Your task to perform on an android device: Open sound settings Image 0: 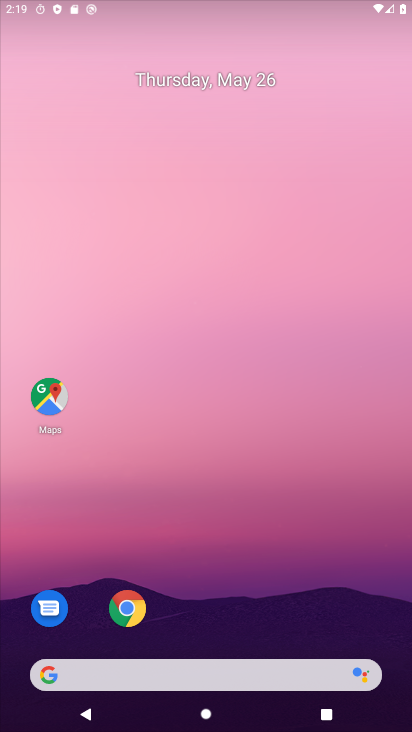
Step 0: drag from (25, 54) to (222, 118)
Your task to perform on an android device: Open sound settings Image 1: 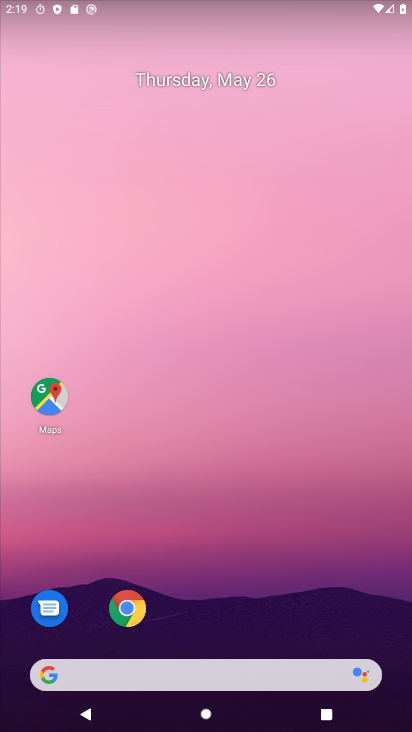
Step 1: drag from (267, 692) to (215, 154)
Your task to perform on an android device: Open sound settings Image 2: 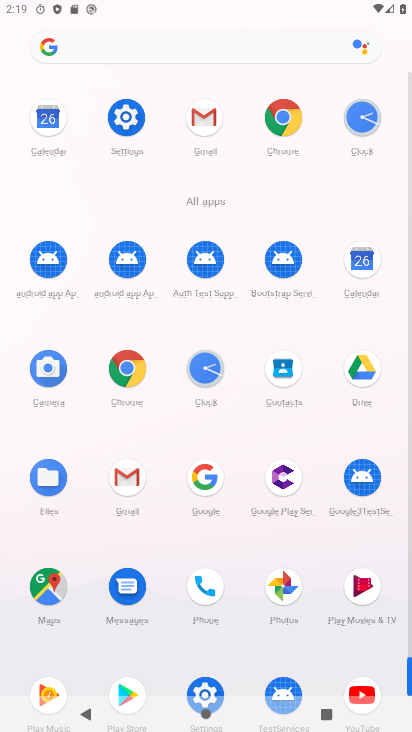
Step 2: click (125, 125)
Your task to perform on an android device: Open sound settings Image 3: 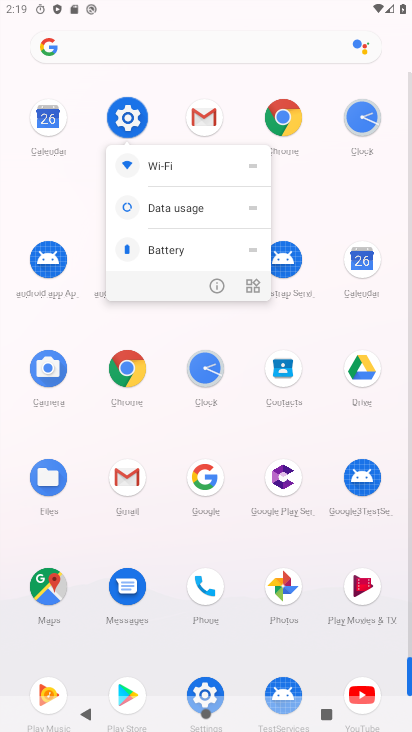
Step 3: click (125, 124)
Your task to perform on an android device: Open sound settings Image 4: 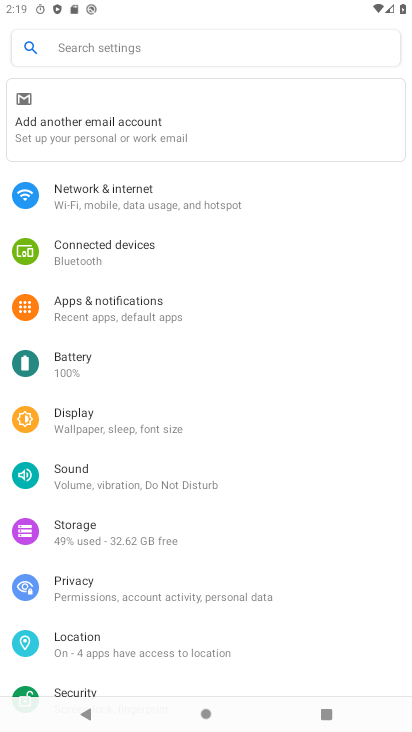
Step 4: click (66, 470)
Your task to perform on an android device: Open sound settings Image 5: 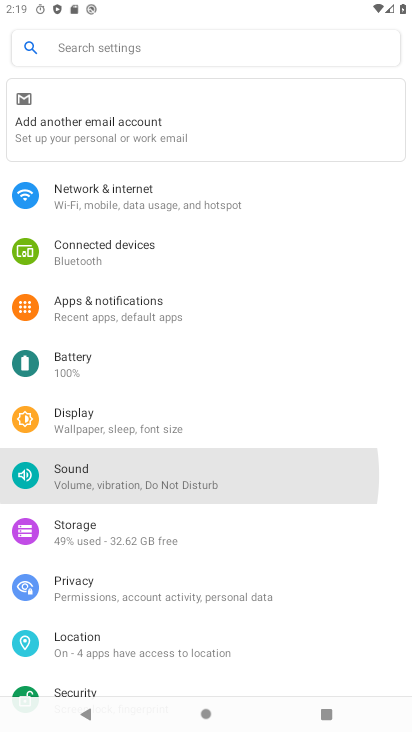
Step 5: click (67, 470)
Your task to perform on an android device: Open sound settings Image 6: 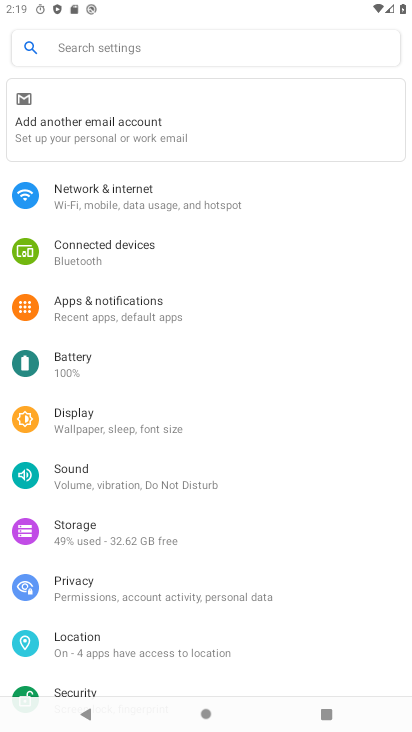
Step 6: click (68, 470)
Your task to perform on an android device: Open sound settings Image 7: 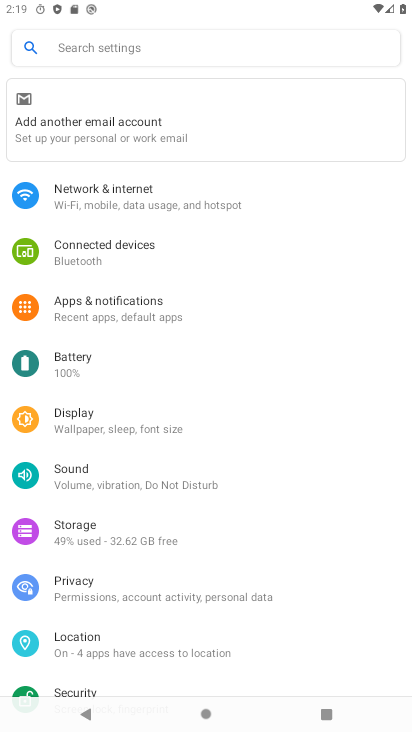
Step 7: click (68, 470)
Your task to perform on an android device: Open sound settings Image 8: 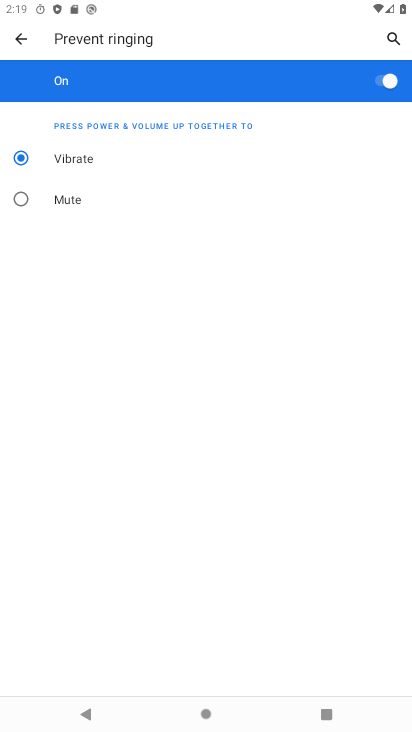
Step 8: click (14, 34)
Your task to perform on an android device: Open sound settings Image 9: 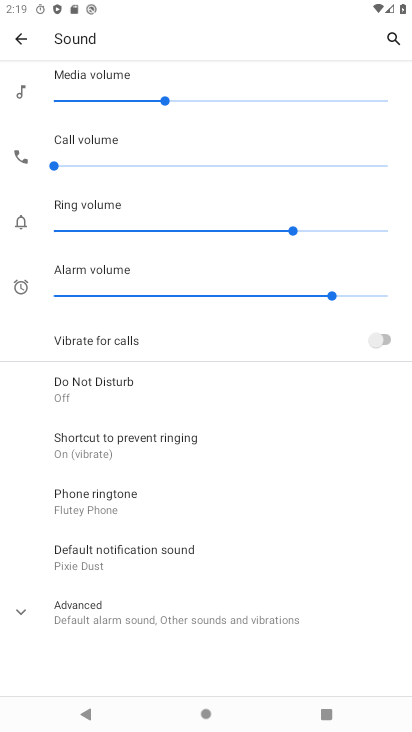
Step 9: task complete